Your task to perform on an android device: Open notification settings Image 0: 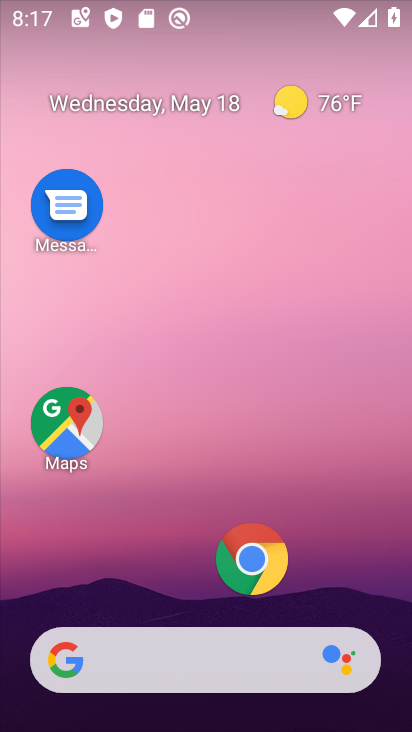
Step 0: drag from (158, 608) to (79, 27)
Your task to perform on an android device: Open notification settings Image 1: 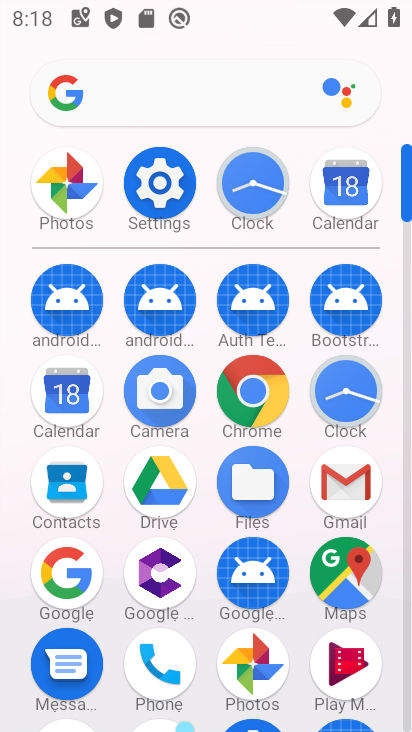
Step 1: click (164, 205)
Your task to perform on an android device: Open notification settings Image 2: 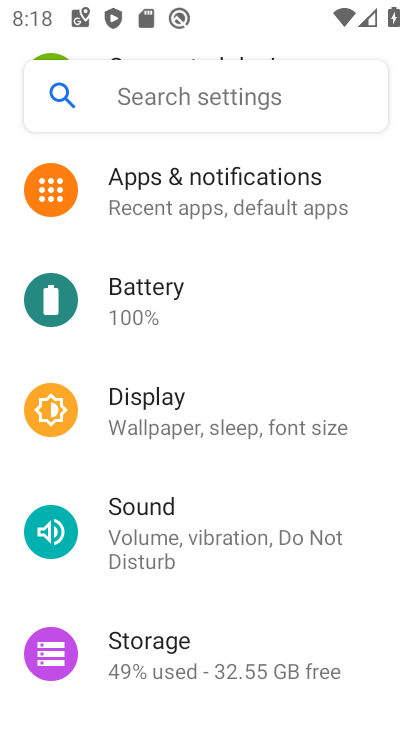
Step 2: click (218, 615)
Your task to perform on an android device: Open notification settings Image 3: 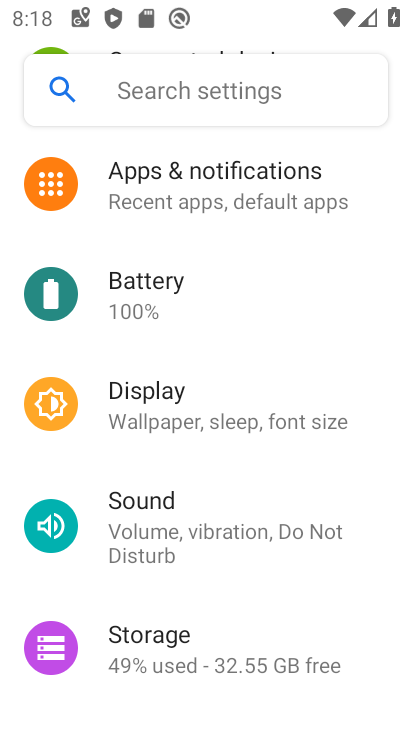
Step 3: click (98, 174)
Your task to perform on an android device: Open notification settings Image 4: 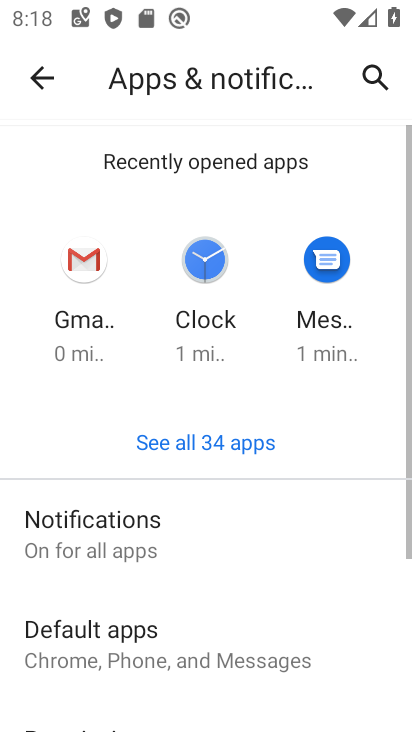
Step 4: click (50, 543)
Your task to perform on an android device: Open notification settings Image 5: 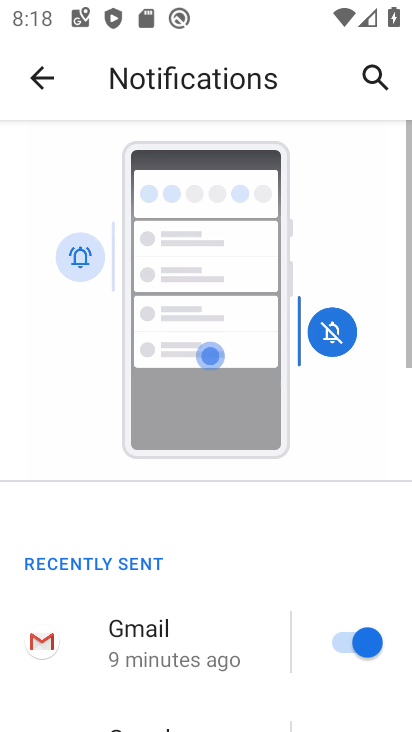
Step 5: task complete